Your task to perform on an android device: Open Google Maps Image 0: 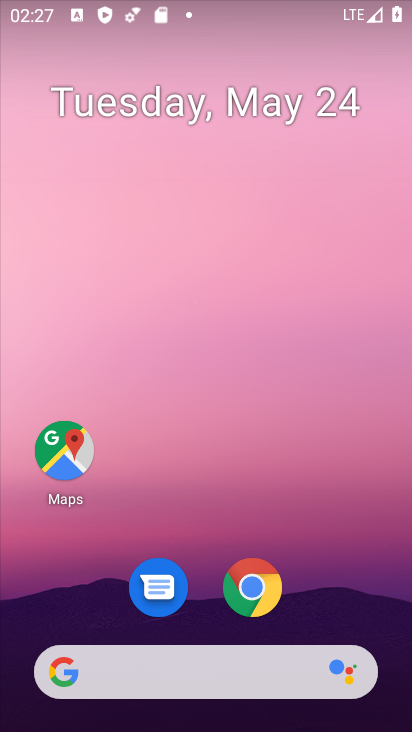
Step 0: click (71, 458)
Your task to perform on an android device: Open Google Maps Image 1: 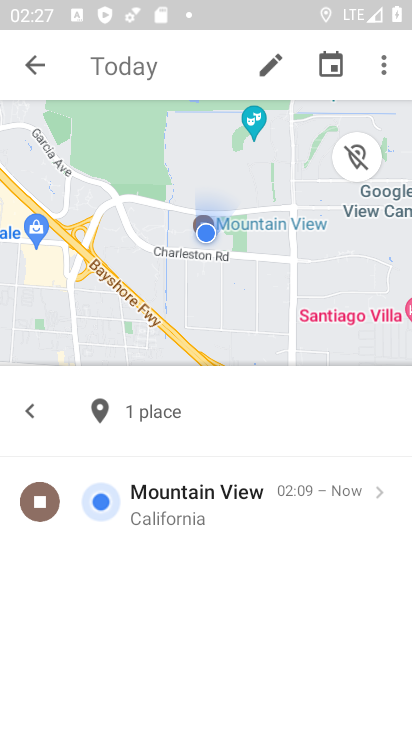
Step 1: click (31, 67)
Your task to perform on an android device: Open Google Maps Image 2: 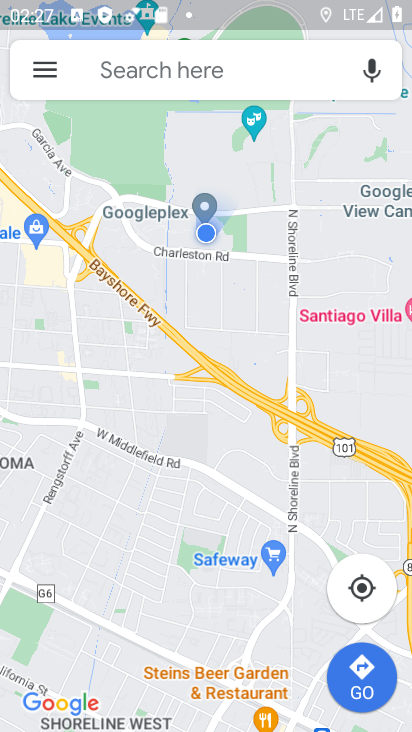
Step 2: task complete